Your task to perform on an android device: Go to battery settings Image 0: 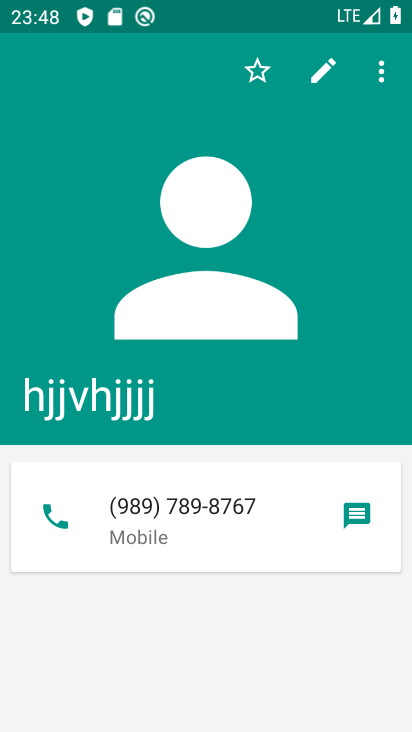
Step 0: press home button
Your task to perform on an android device: Go to battery settings Image 1: 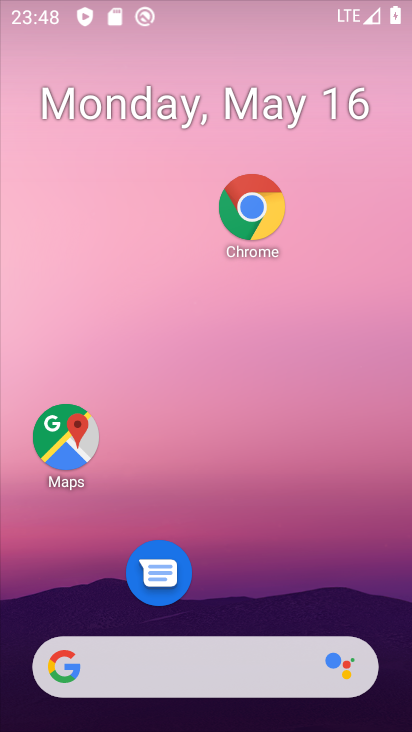
Step 1: drag from (315, 633) to (311, 172)
Your task to perform on an android device: Go to battery settings Image 2: 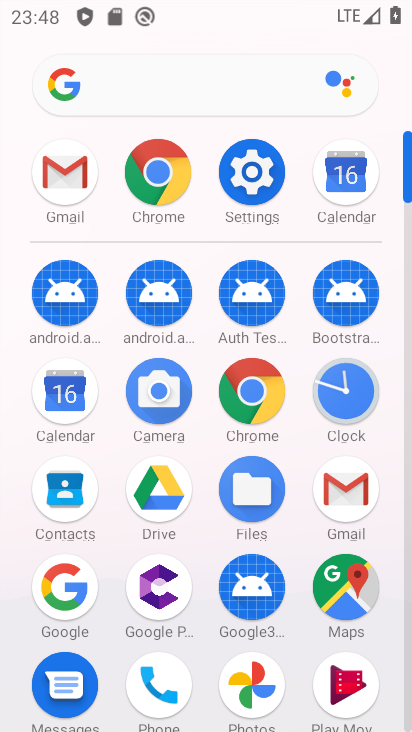
Step 2: click (247, 179)
Your task to perform on an android device: Go to battery settings Image 3: 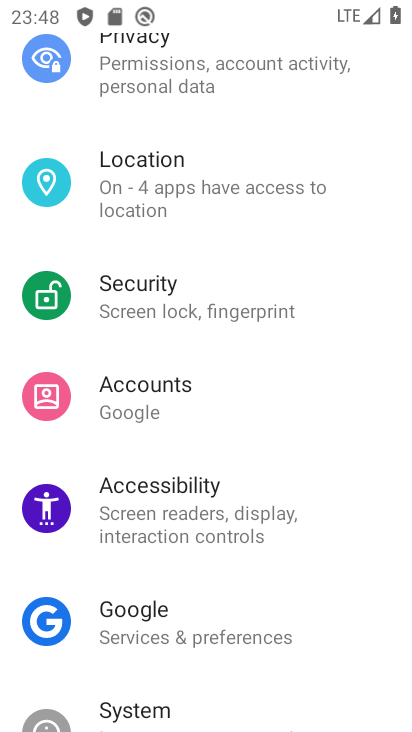
Step 3: drag from (258, 236) to (332, 726)
Your task to perform on an android device: Go to battery settings Image 4: 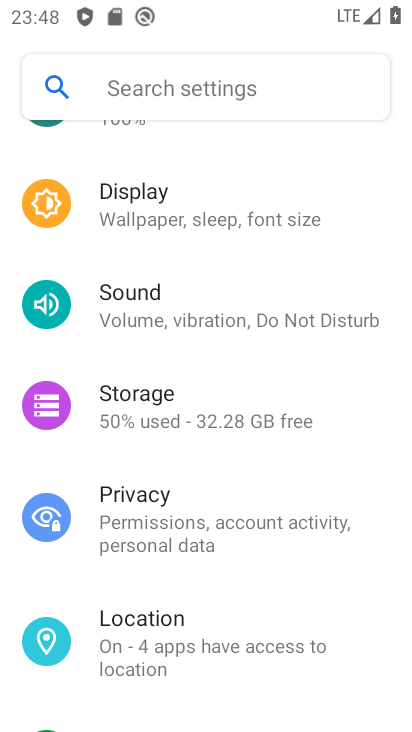
Step 4: drag from (210, 259) to (219, 683)
Your task to perform on an android device: Go to battery settings Image 5: 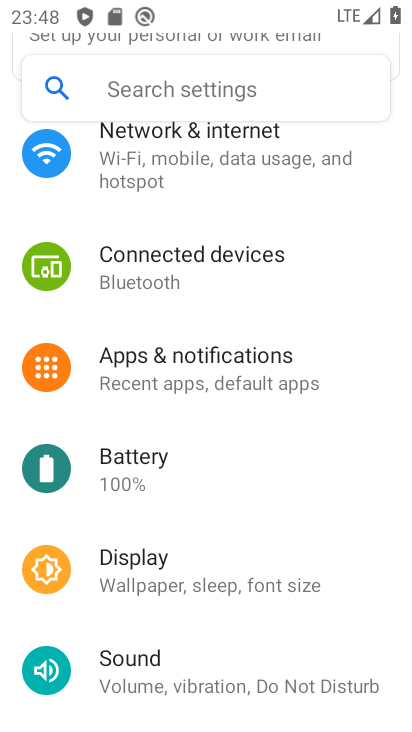
Step 5: click (192, 465)
Your task to perform on an android device: Go to battery settings Image 6: 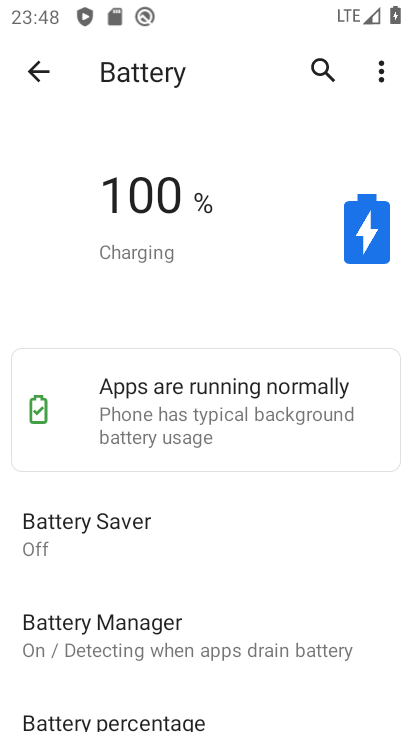
Step 6: task complete